Your task to perform on an android device: turn smart compose on in the gmail app Image 0: 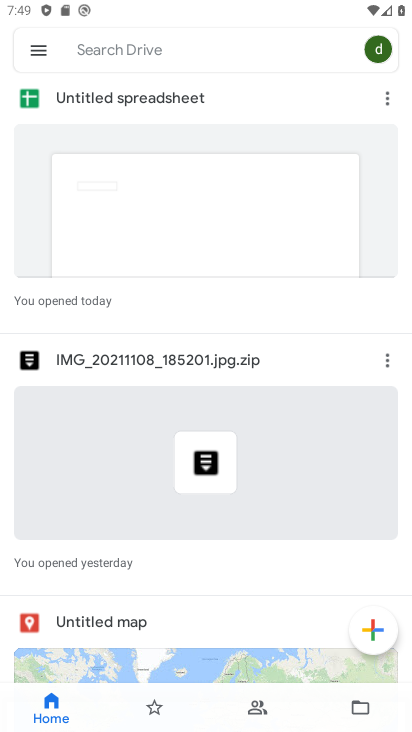
Step 0: press home button
Your task to perform on an android device: turn smart compose on in the gmail app Image 1: 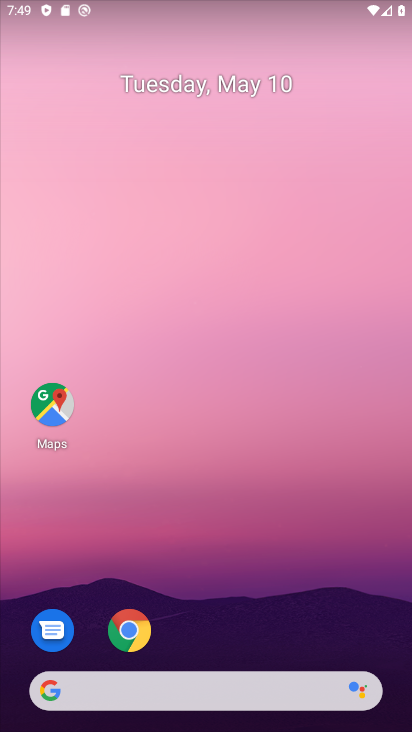
Step 1: drag from (206, 416) to (237, 60)
Your task to perform on an android device: turn smart compose on in the gmail app Image 2: 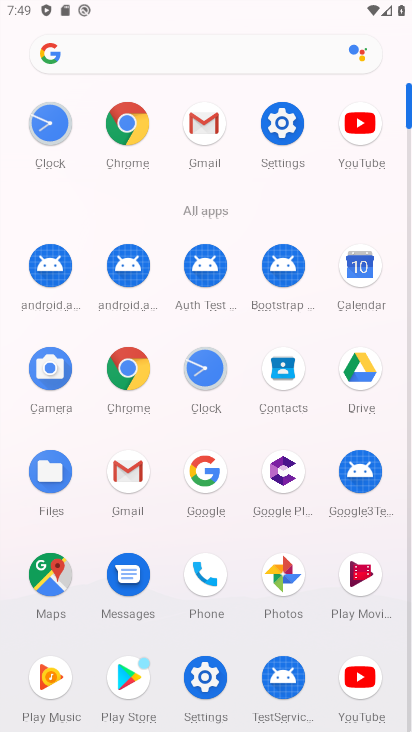
Step 2: click (202, 127)
Your task to perform on an android device: turn smart compose on in the gmail app Image 3: 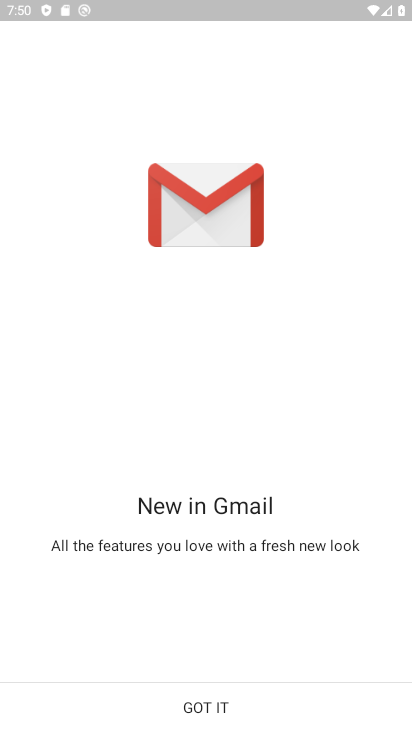
Step 3: click (217, 707)
Your task to perform on an android device: turn smart compose on in the gmail app Image 4: 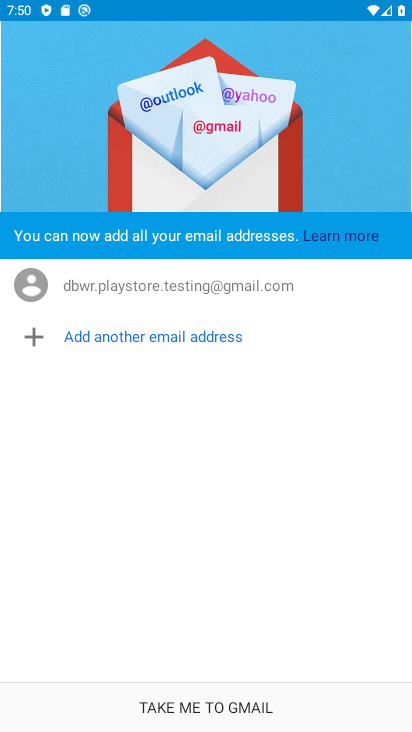
Step 4: click (217, 707)
Your task to perform on an android device: turn smart compose on in the gmail app Image 5: 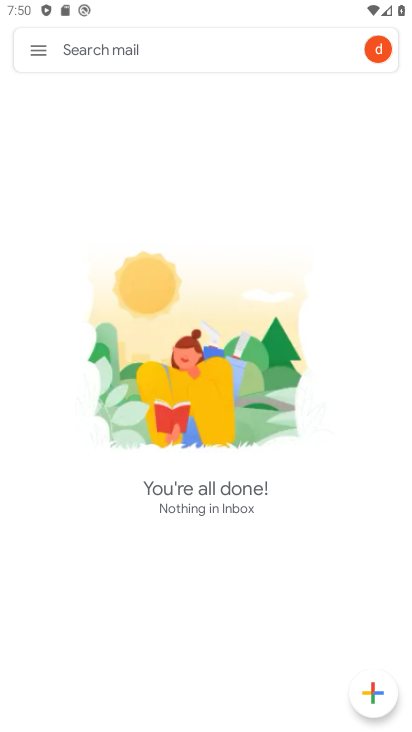
Step 5: click (28, 53)
Your task to perform on an android device: turn smart compose on in the gmail app Image 6: 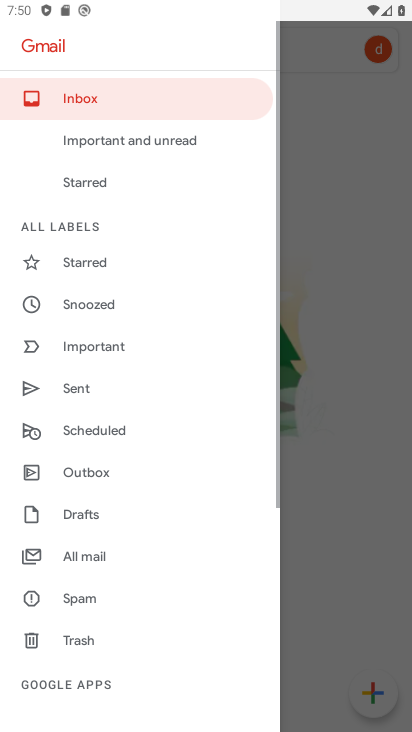
Step 6: drag from (140, 655) to (236, 41)
Your task to perform on an android device: turn smart compose on in the gmail app Image 7: 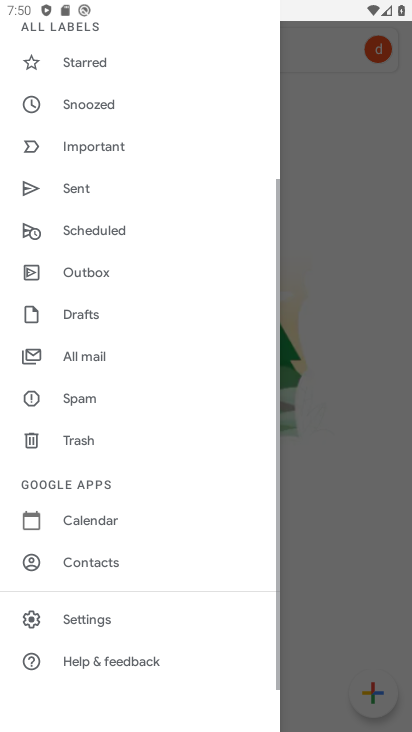
Step 7: click (138, 617)
Your task to perform on an android device: turn smart compose on in the gmail app Image 8: 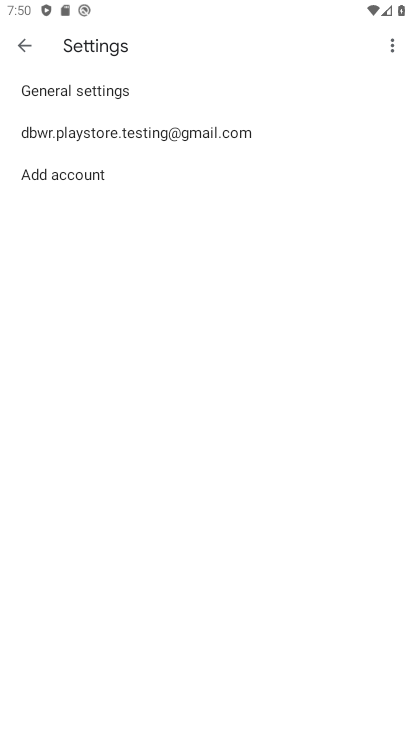
Step 8: click (295, 134)
Your task to perform on an android device: turn smart compose on in the gmail app Image 9: 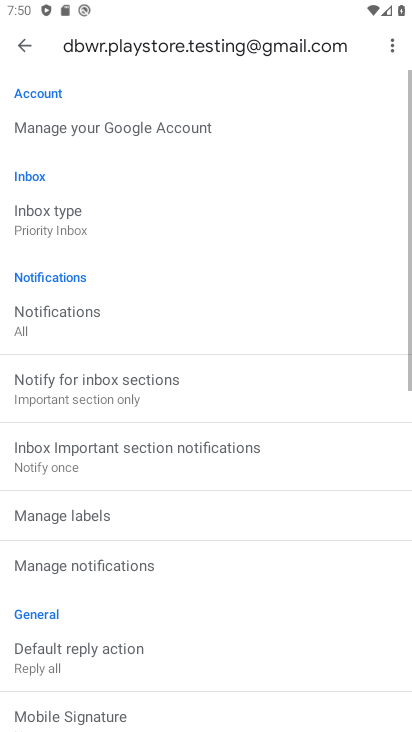
Step 9: task complete